Your task to perform on an android device: Go to network settings Image 0: 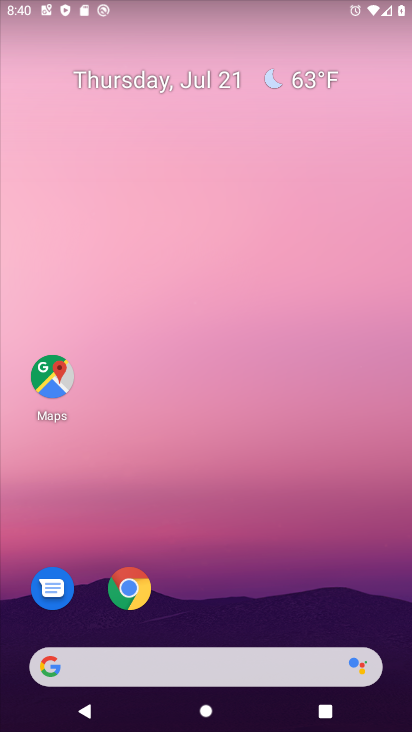
Step 0: drag from (273, 583) to (273, 165)
Your task to perform on an android device: Go to network settings Image 1: 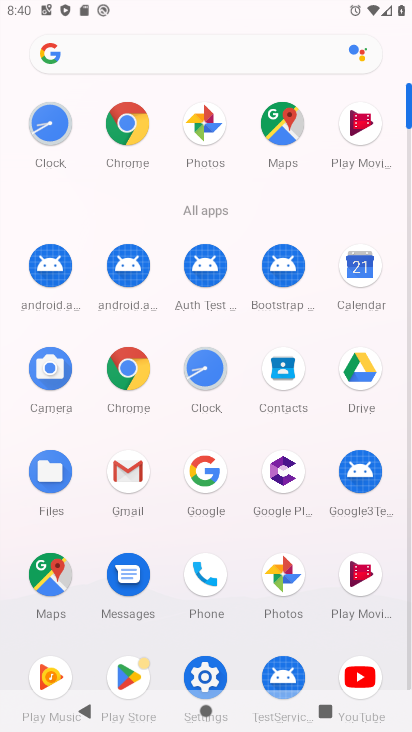
Step 1: click (200, 663)
Your task to perform on an android device: Go to network settings Image 2: 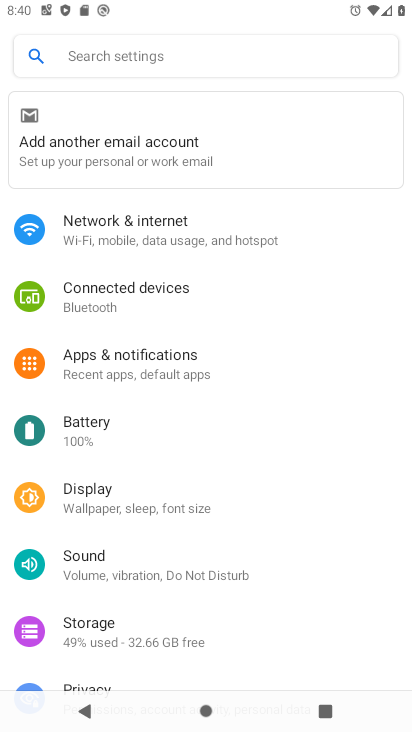
Step 2: click (119, 228)
Your task to perform on an android device: Go to network settings Image 3: 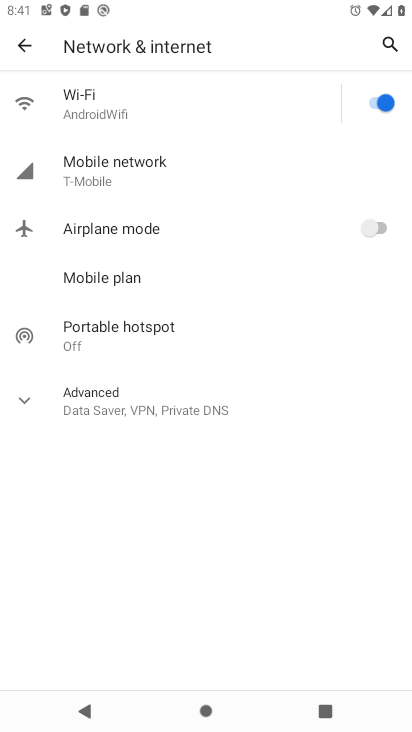
Step 3: click (154, 177)
Your task to perform on an android device: Go to network settings Image 4: 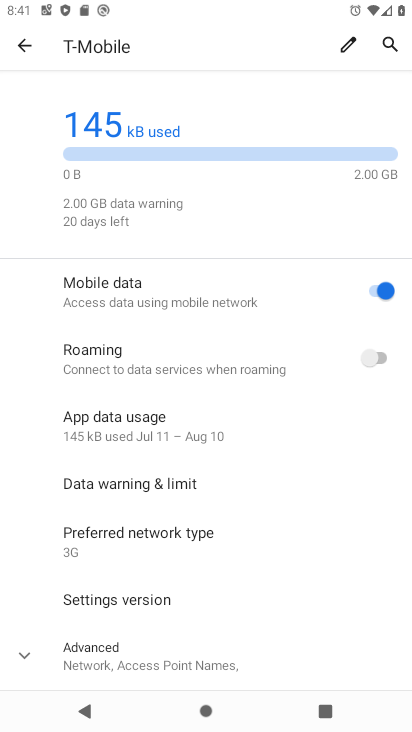
Step 4: task complete